Your task to perform on an android device: Toggle the flashlight Image 0: 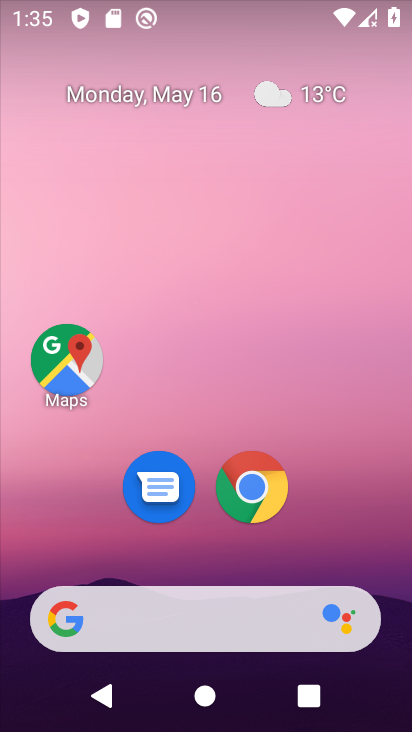
Step 0: drag from (397, 627) to (350, 24)
Your task to perform on an android device: Toggle the flashlight Image 1: 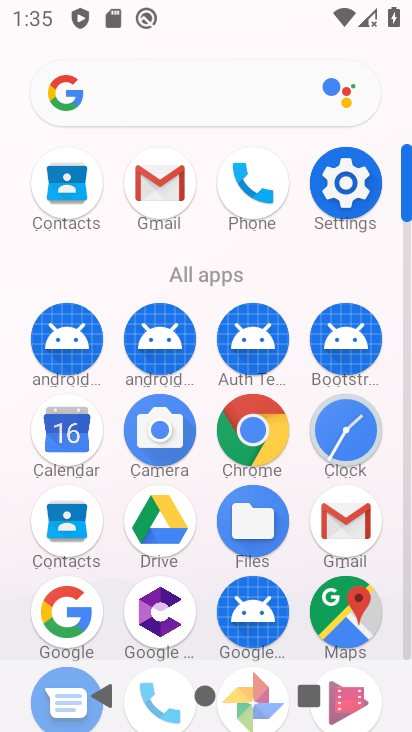
Step 1: click (329, 191)
Your task to perform on an android device: Toggle the flashlight Image 2: 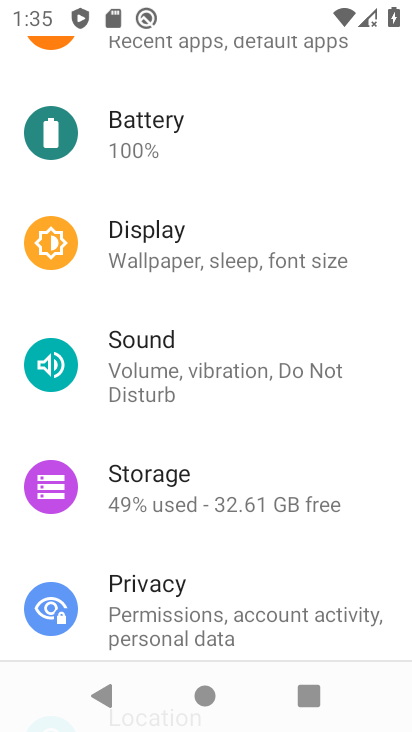
Step 2: click (128, 258)
Your task to perform on an android device: Toggle the flashlight Image 3: 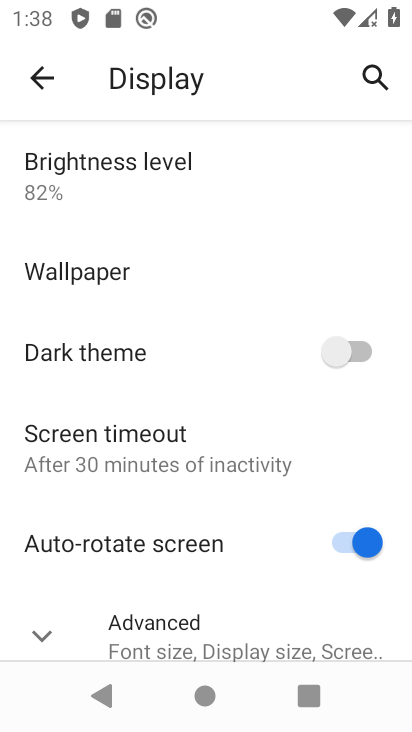
Step 3: task complete